Your task to perform on an android device: Show me popular games on the Play Store Image 0: 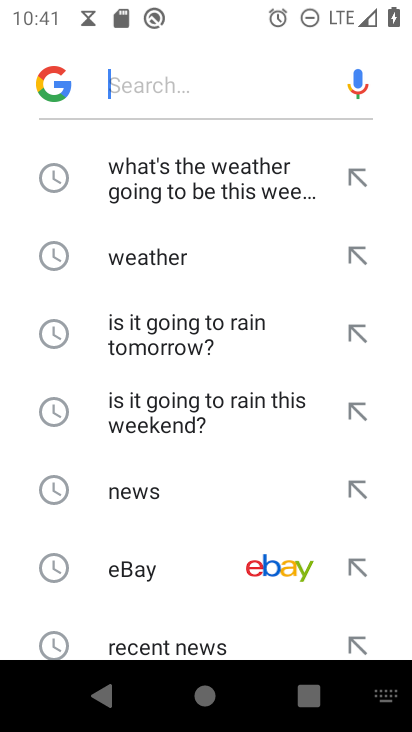
Step 0: press home button
Your task to perform on an android device: Show me popular games on the Play Store Image 1: 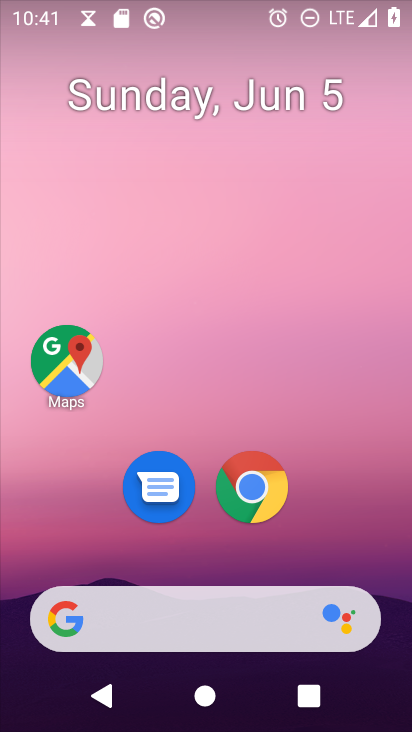
Step 1: drag from (184, 579) to (166, 211)
Your task to perform on an android device: Show me popular games on the Play Store Image 2: 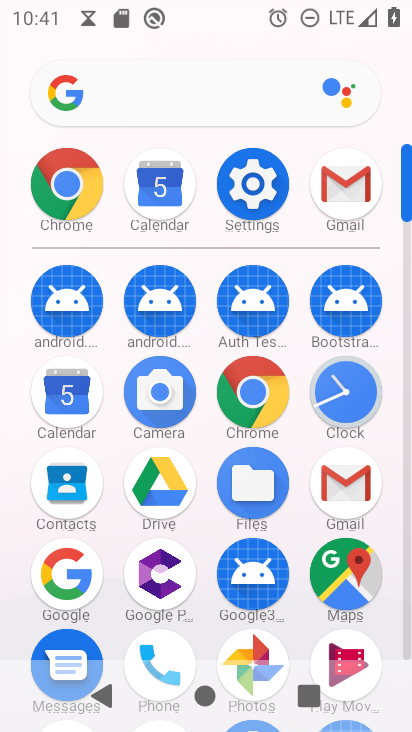
Step 2: drag from (186, 601) to (227, 244)
Your task to perform on an android device: Show me popular games on the Play Store Image 3: 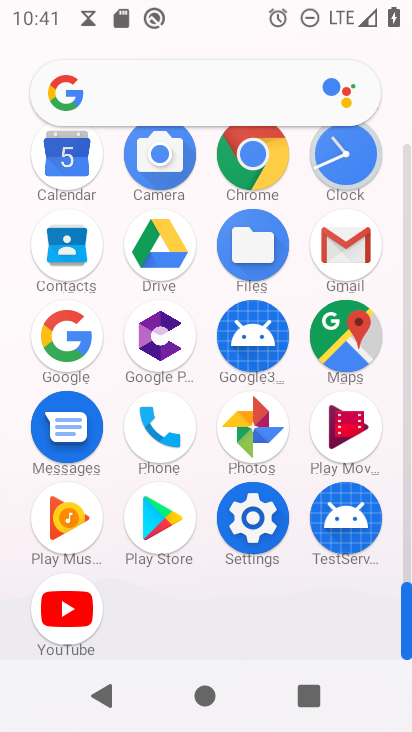
Step 3: click (166, 511)
Your task to perform on an android device: Show me popular games on the Play Store Image 4: 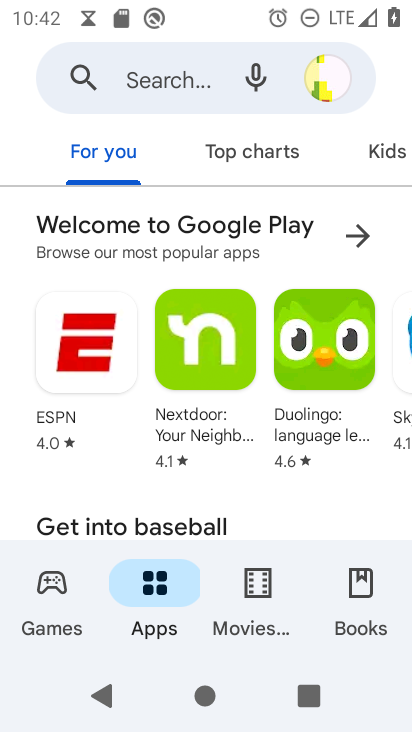
Step 4: task complete